Your task to perform on an android device: When is my next appointment? Image 0: 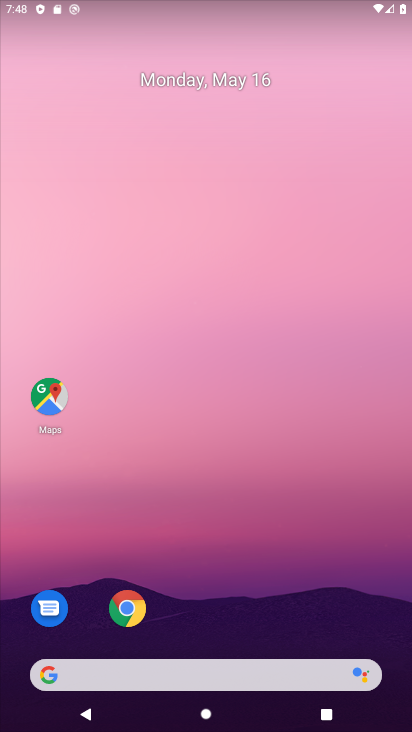
Step 0: press home button
Your task to perform on an android device: When is my next appointment? Image 1: 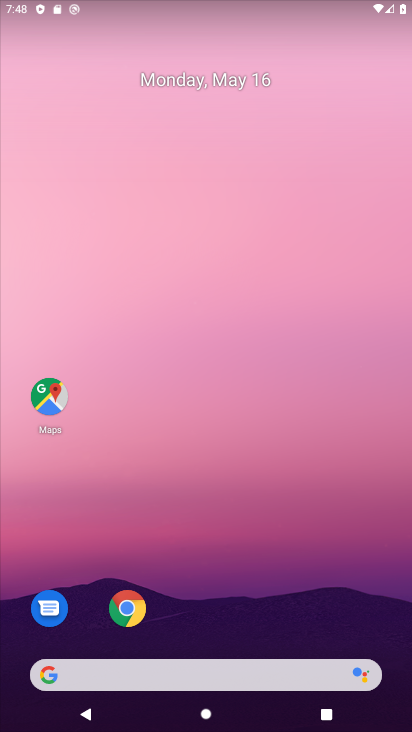
Step 1: drag from (11, 634) to (268, 84)
Your task to perform on an android device: When is my next appointment? Image 2: 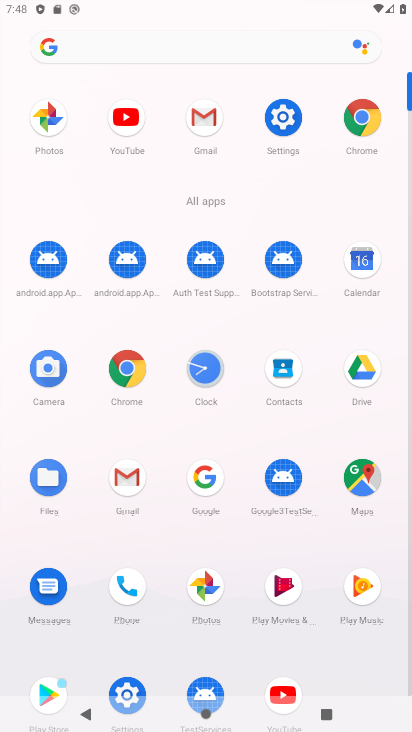
Step 2: click (360, 261)
Your task to perform on an android device: When is my next appointment? Image 3: 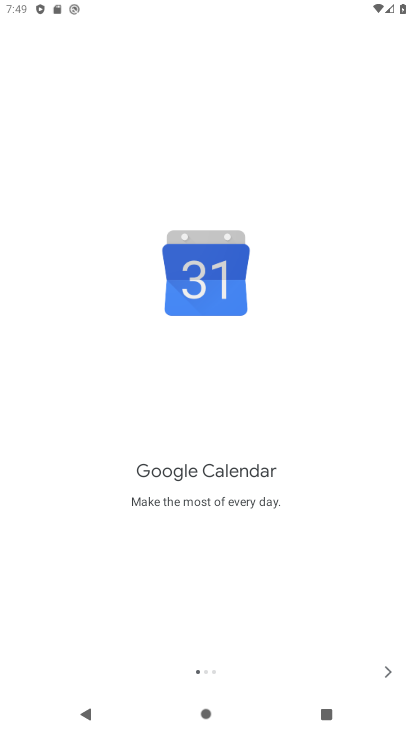
Step 3: click (393, 673)
Your task to perform on an android device: When is my next appointment? Image 4: 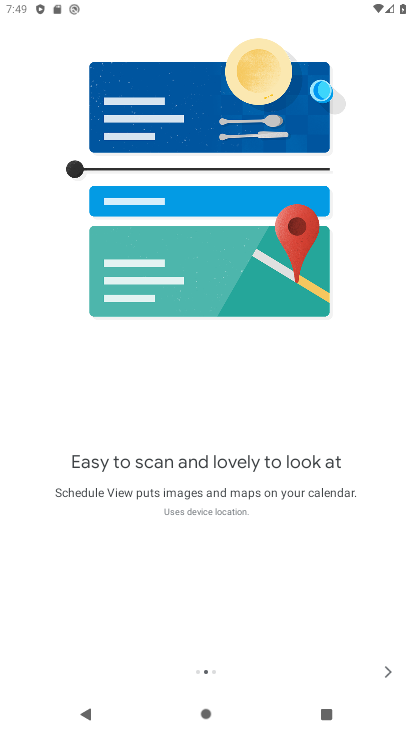
Step 4: click (393, 672)
Your task to perform on an android device: When is my next appointment? Image 5: 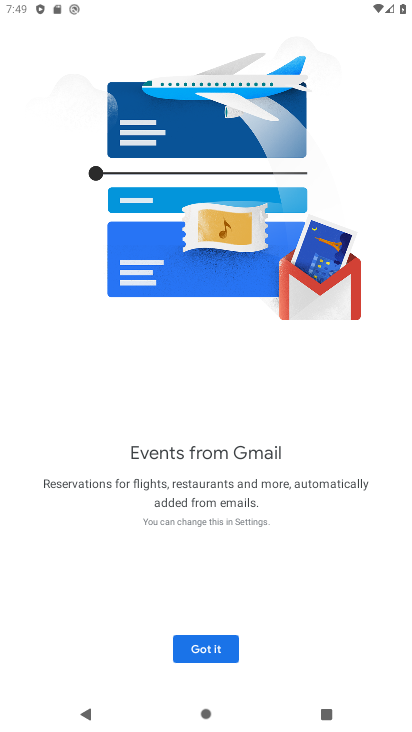
Step 5: click (220, 650)
Your task to perform on an android device: When is my next appointment? Image 6: 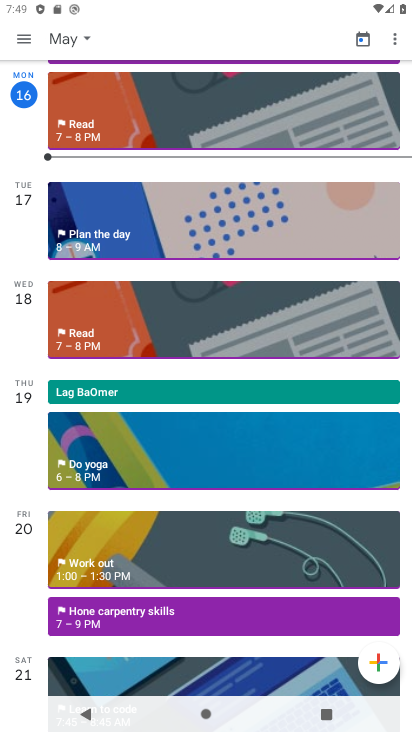
Step 6: drag from (110, 104) to (40, 429)
Your task to perform on an android device: When is my next appointment? Image 7: 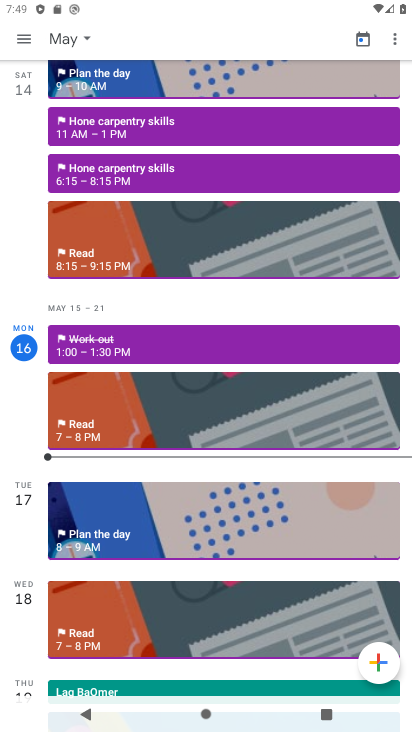
Step 7: drag from (182, 107) to (91, 425)
Your task to perform on an android device: When is my next appointment? Image 8: 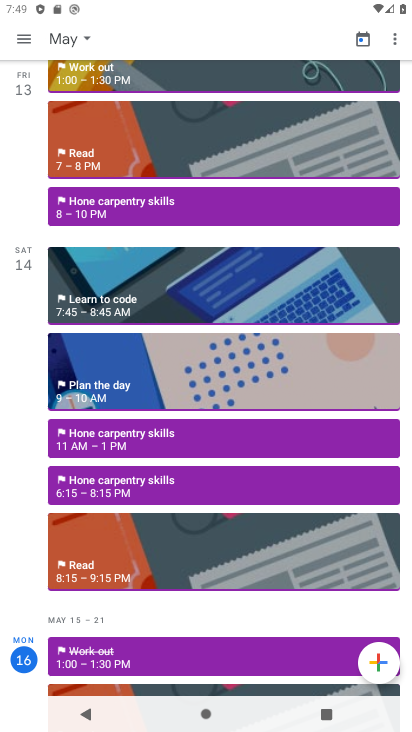
Step 8: drag from (242, 144) to (188, 543)
Your task to perform on an android device: When is my next appointment? Image 9: 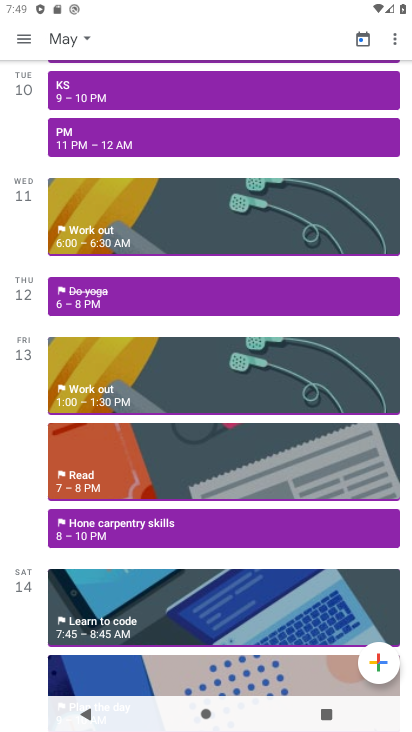
Step 9: drag from (294, 213) to (210, 591)
Your task to perform on an android device: When is my next appointment? Image 10: 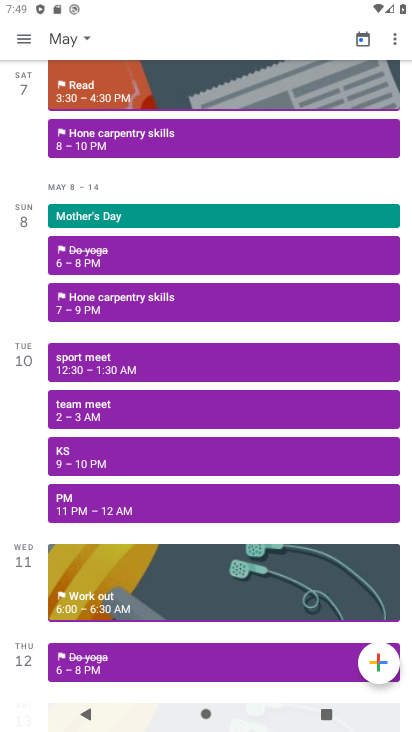
Step 10: click (61, 34)
Your task to perform on an android device: When is my next appointment? Image 11: 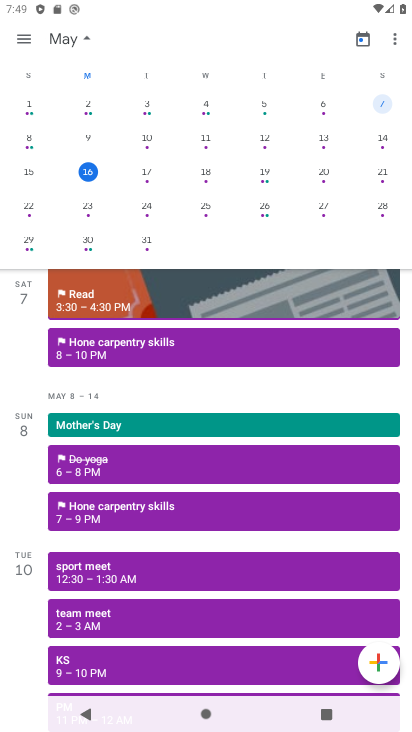
Step 11: task complete